Your task to perform on an android device: change the clock display to digital Image 0: 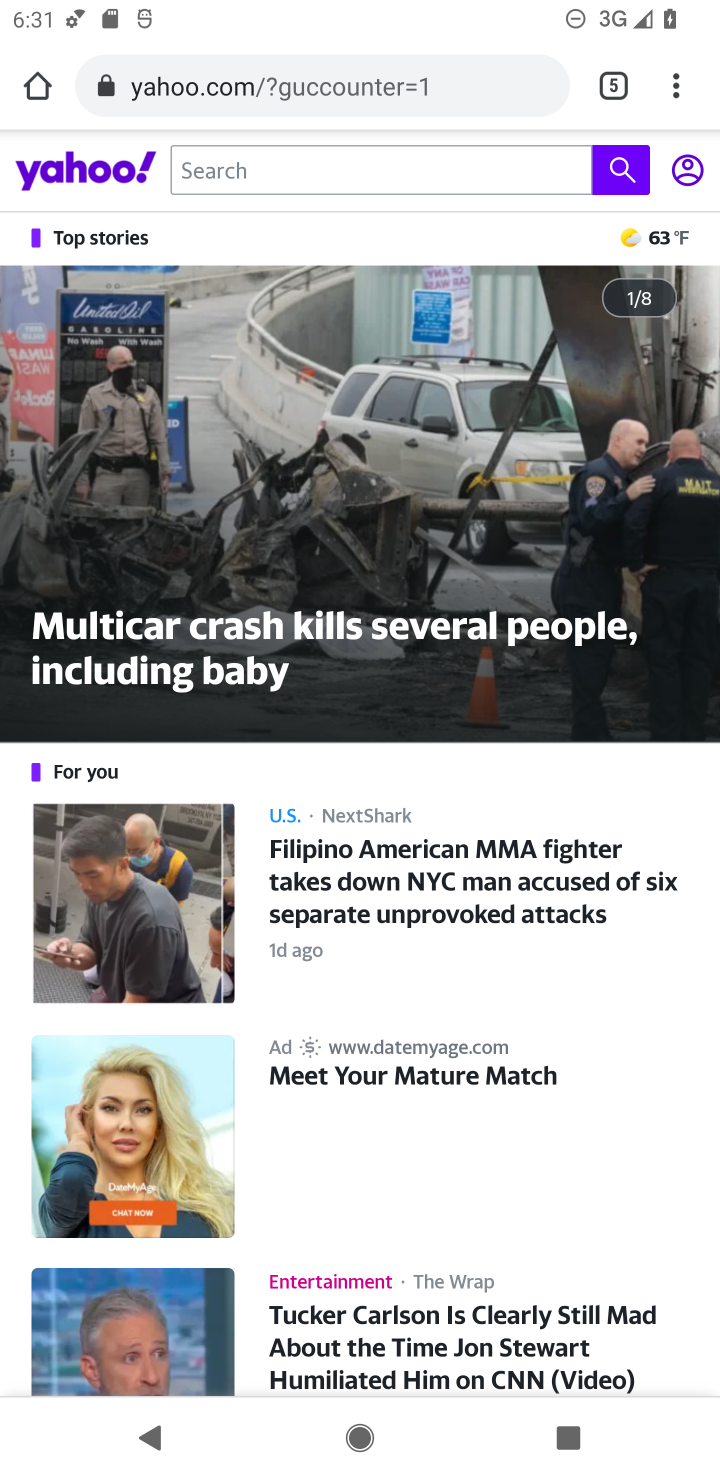
Step 0: press home button
Your task to perform on an android device: change the clock display to digital Image 1: 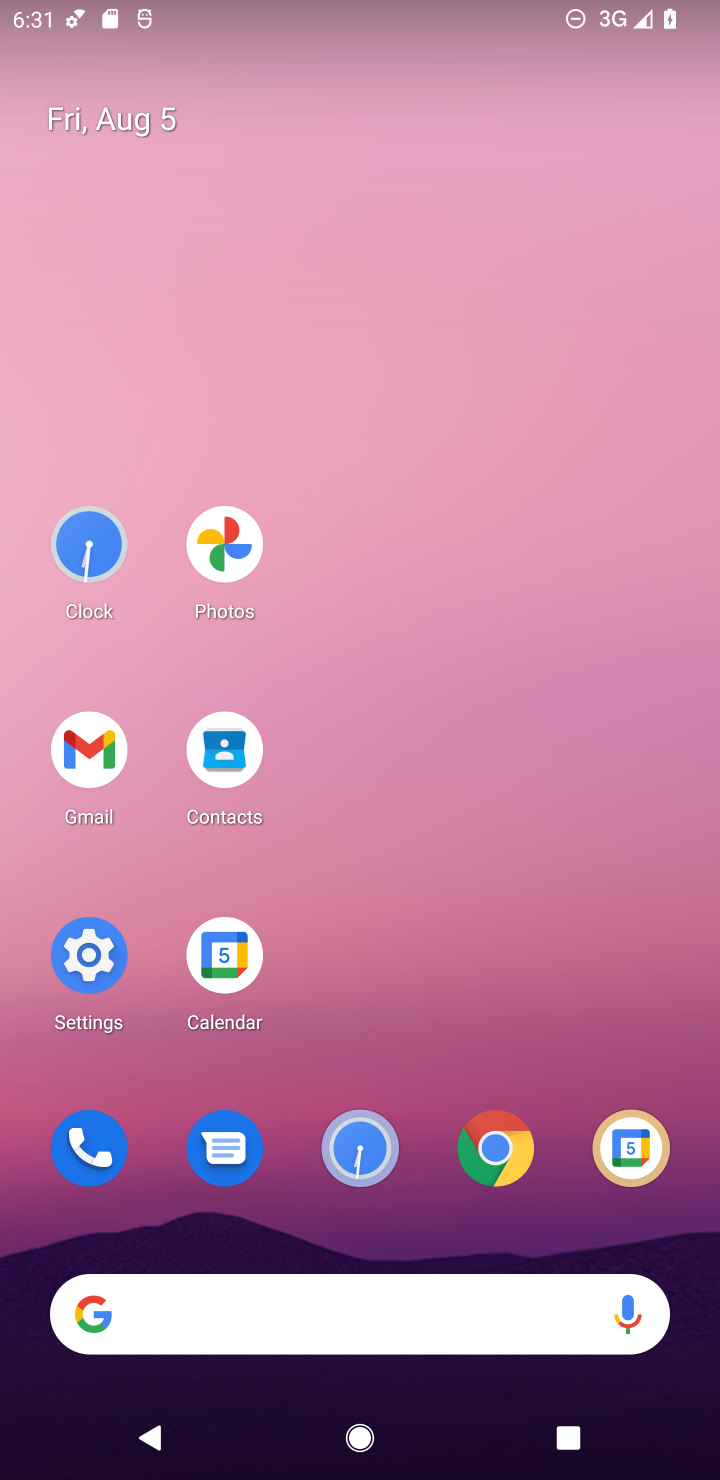
Step 1: click (353, 1141)
Your task to perform on an android device: change the clock display to digital Image 2: 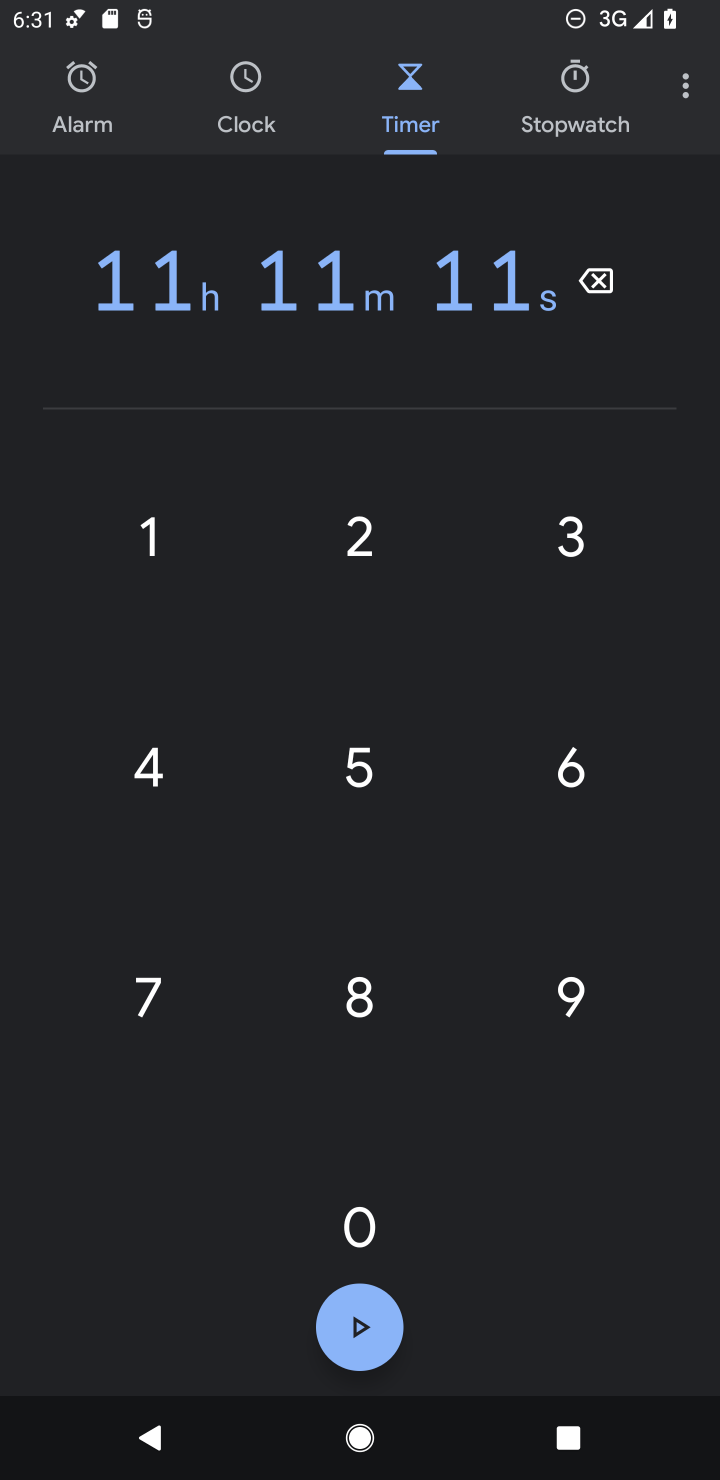
Step 2: click (692, 107)
Your task to perform on an android device: change the clock display to digital Image 3: 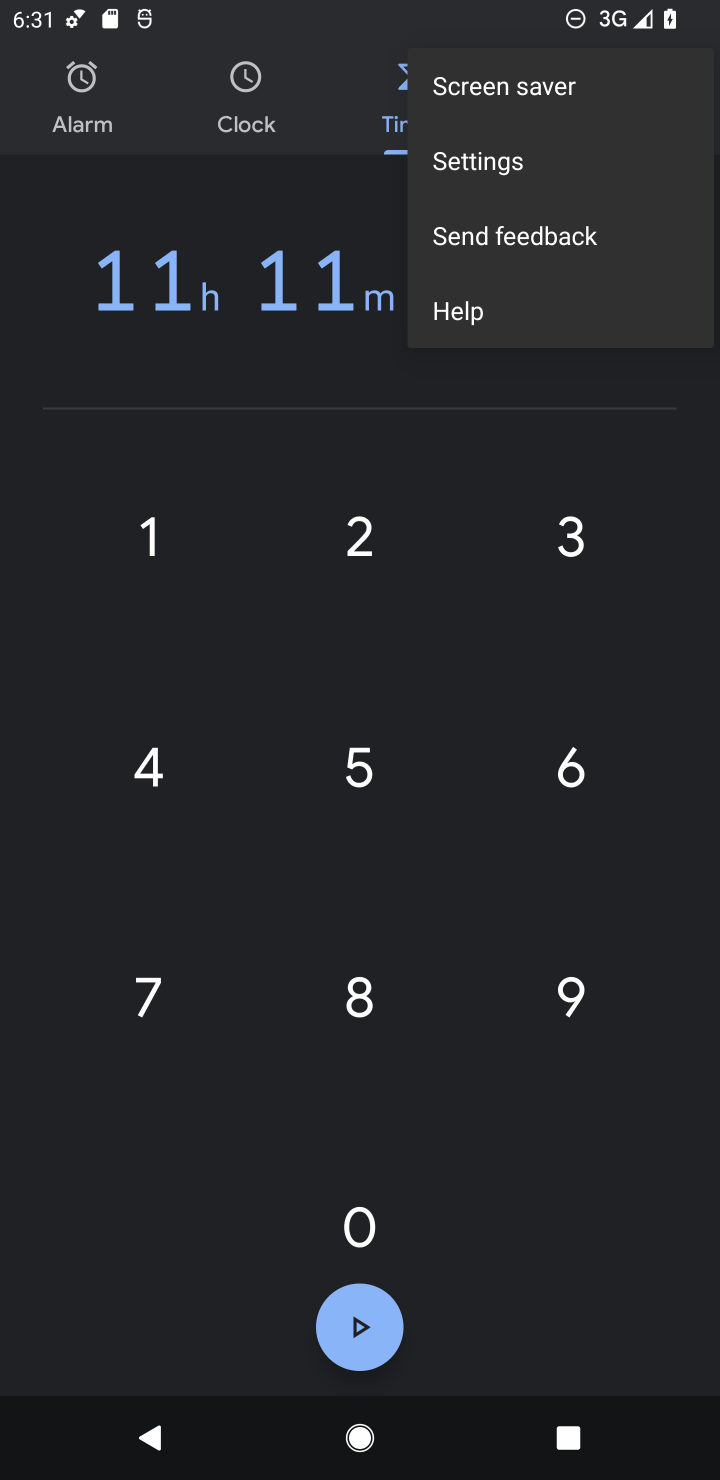
Step 3: click (548, 191)
Your task to perform on an android device: change the clock display to digital Image 4: 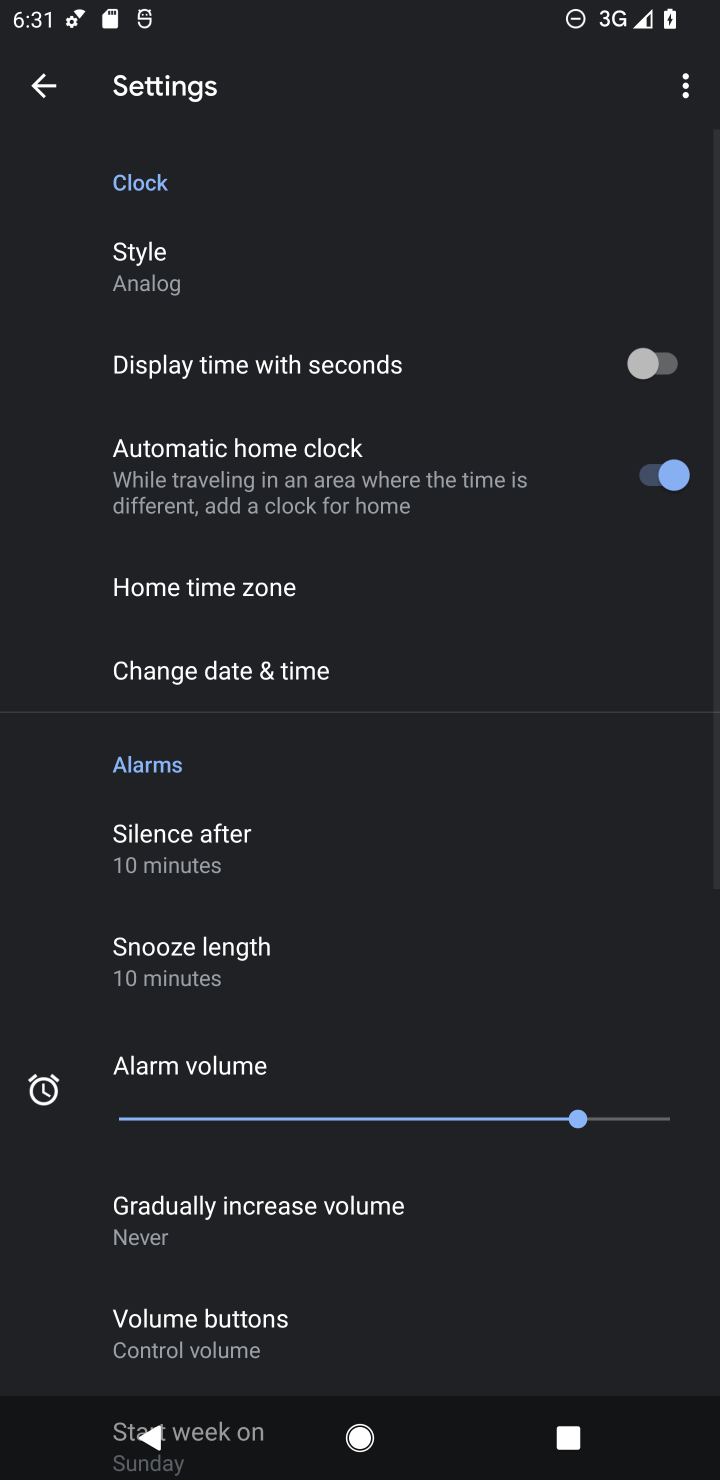
Step 4: click (149, 266)
Your task to perform on an android device: change the clock display to digital Image 5: 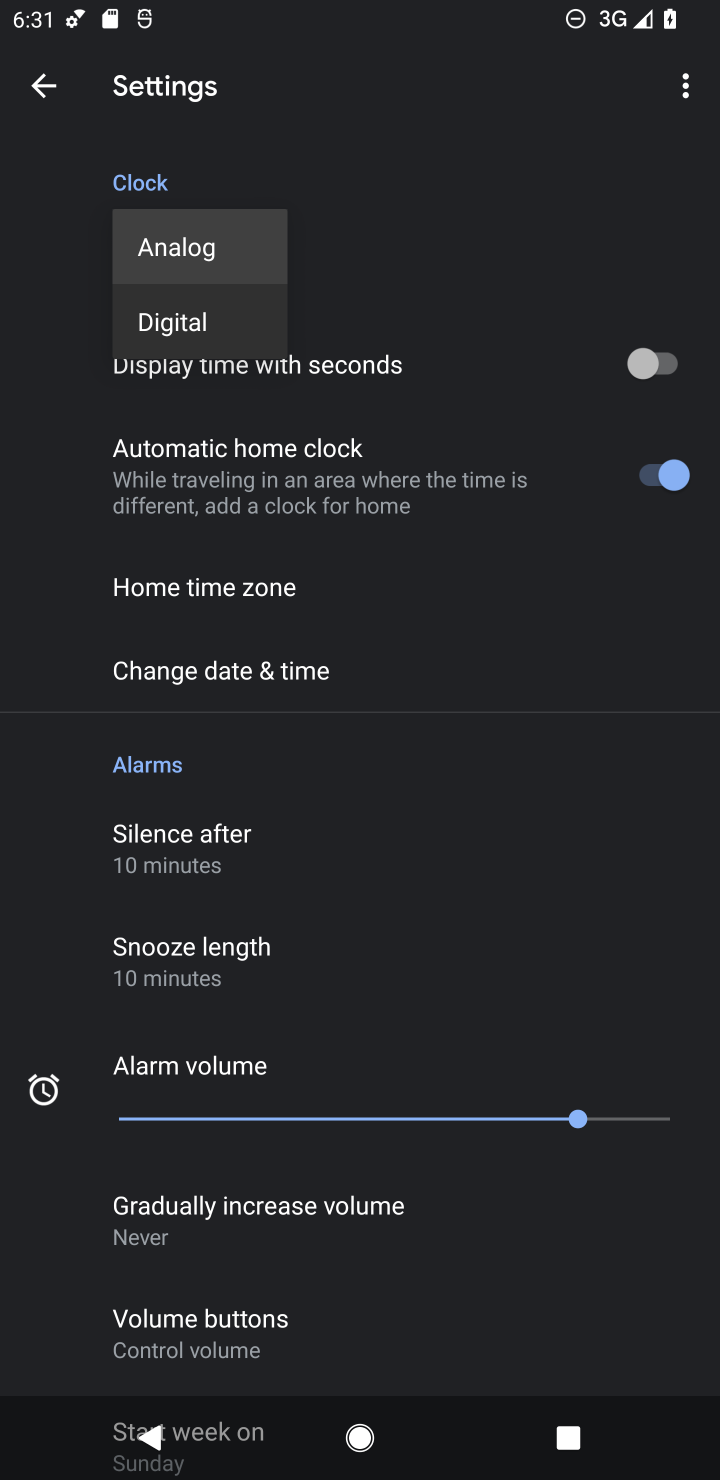
Step 5: click (180, 320)
Your task to perform on an android device: change the clock display to digital Image 6: 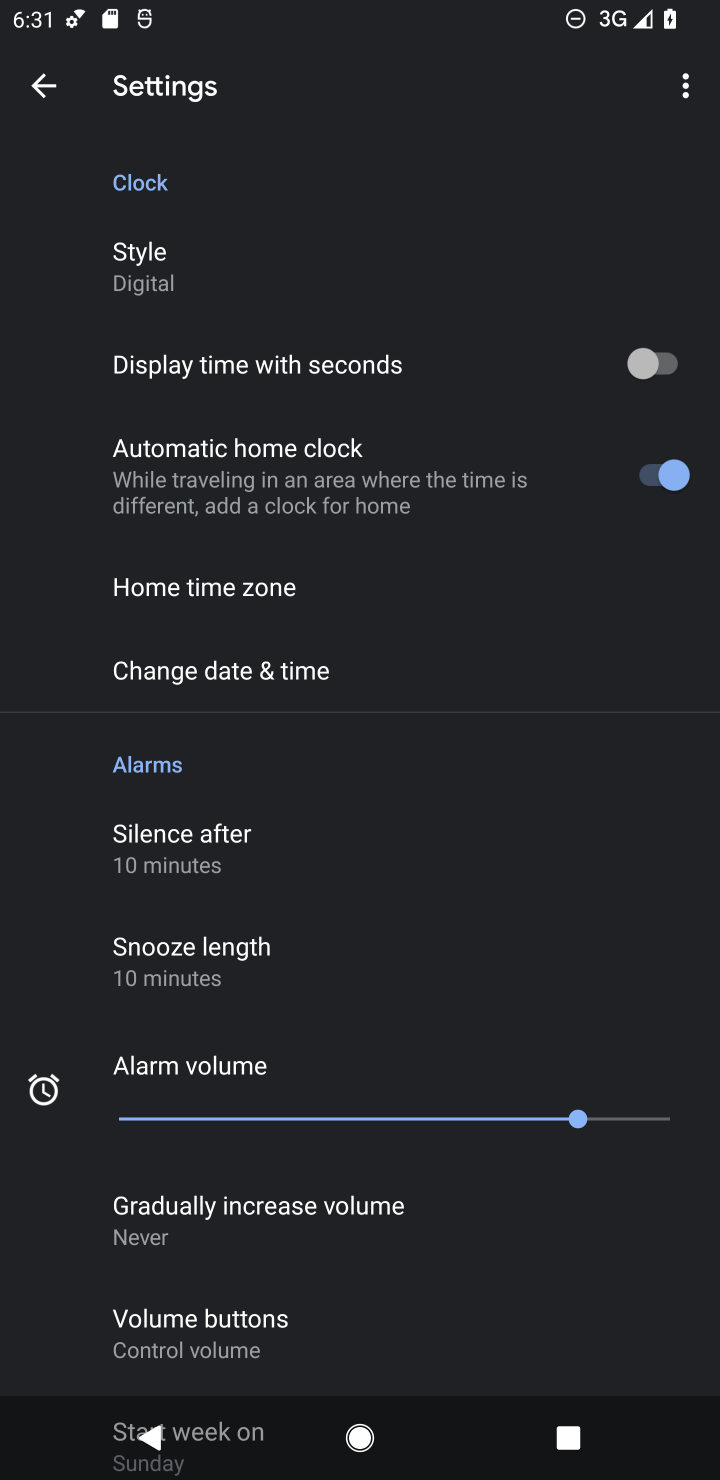
Step 6: task complete